Your task to perform on an android device: set an alarm Image 0: 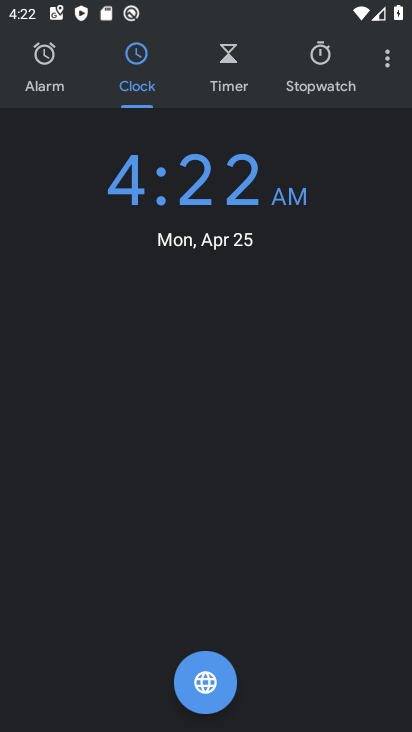
Step 0: click (47, 59)
Your task to perform on an android device: set an alarm Image 1: 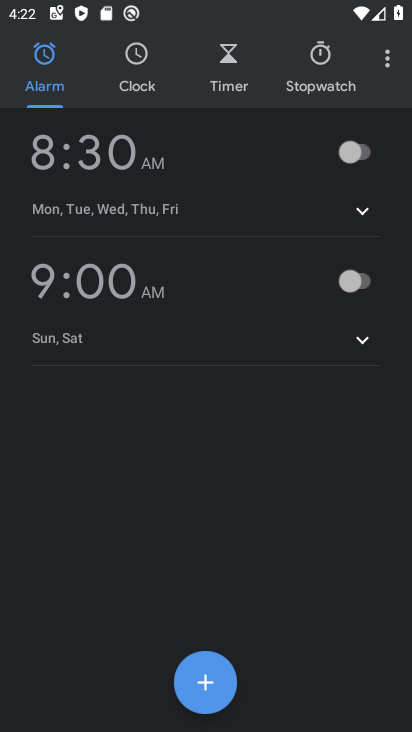
Step 1: click (219, 665)
Your task to perform on an android device: set an alarm Image 2: 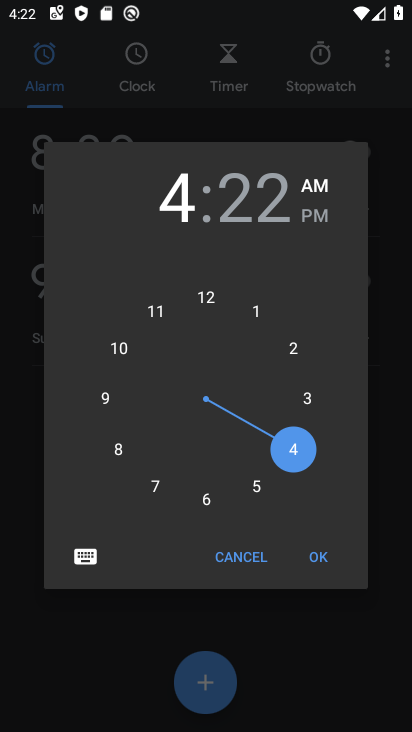
Step 2: click (202, 501)
Your task to perform on an android device: set an alarm Image 3: 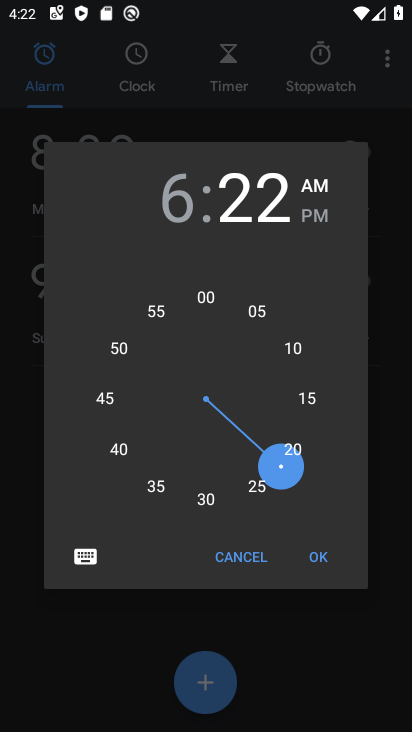
Step 3: click (277, 446)
Your task to perform on an android device: set an alarm Image 4: 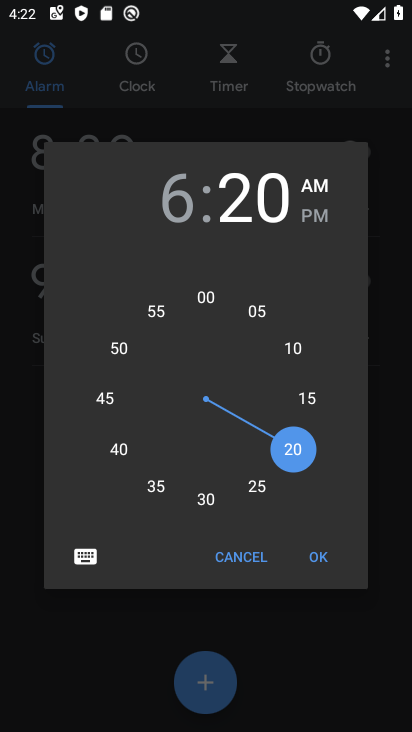
Step 4: click (311, 550)
Your task to perform on an android device: set an alarm Image 5: 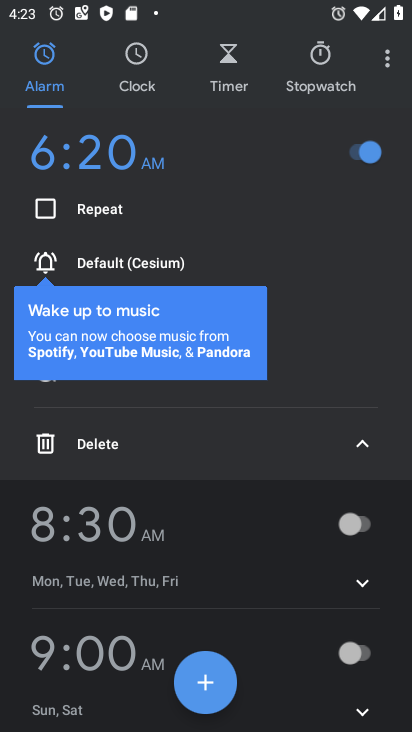
Step 5: task complete